Your task to perform on an android device: Open the Play Movies app and select the watchlist tab. Image 0: 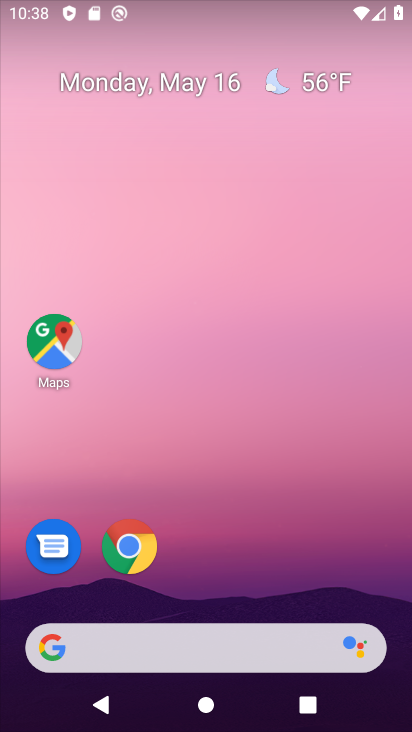
Step 0: drag from (294, 320) to (276, 74)
Your task to perform on an android device: Open the Play Movies app and select the watchlist tab. Image 1: 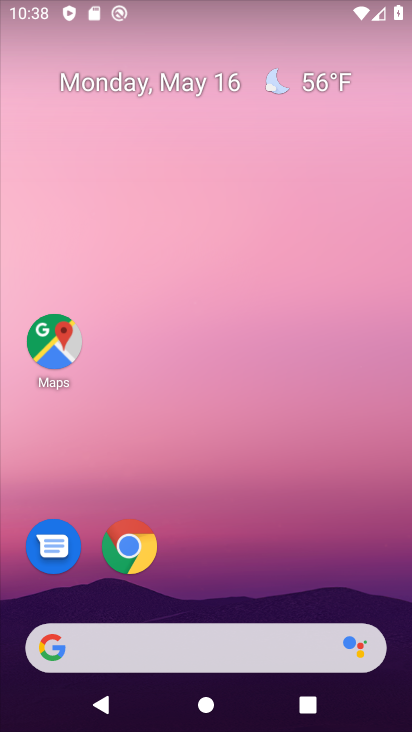
Step 1: drag from (305, 518) to (262, 93)
Your task to perform on an android device: Open the Play Movies app and select the watchlist tab. Image 2: 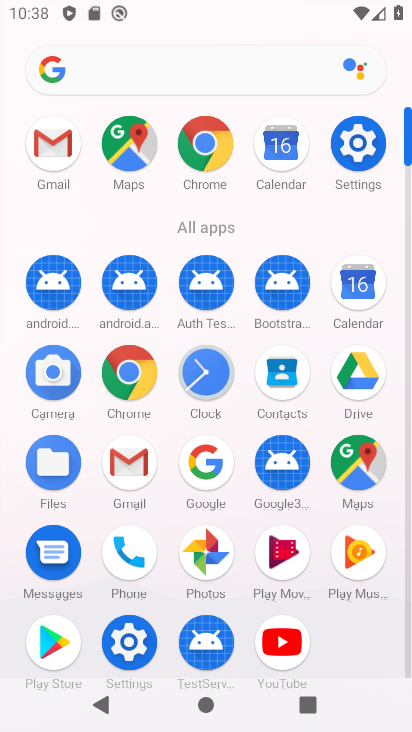
Step 2: click (290, 546)
Your task to perform on an android device: Open the Play Movies app and select the watchlist tab. Image 3: 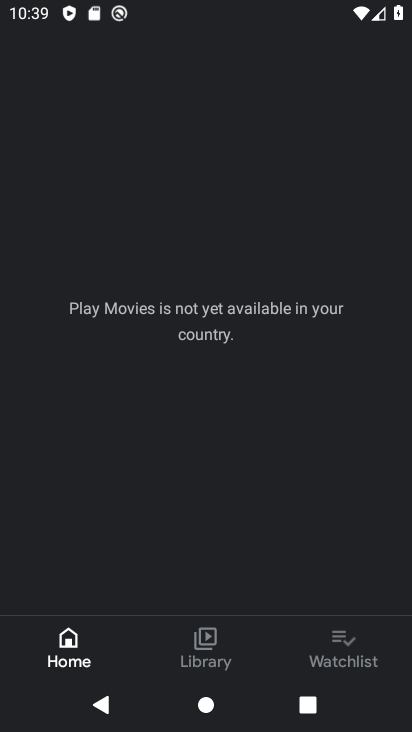
Step 3: click (342, 662)
Your task to perform on an android device: Open the Play Movies app and select the watchlist tab. Image 4: 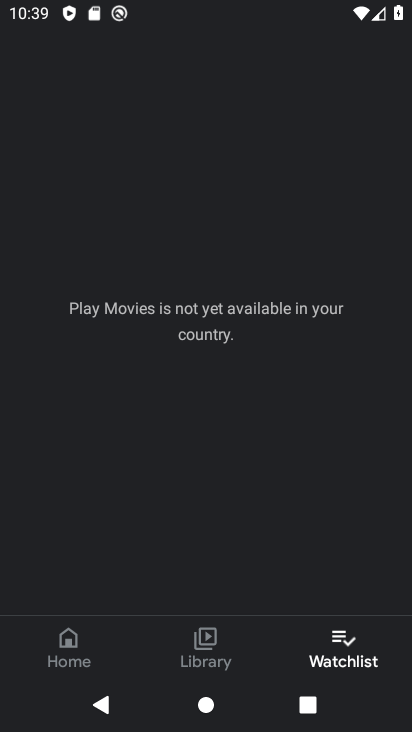
Step 4: task complete